Your task to perform on an android device: turn on bluetooth scan Image 0: 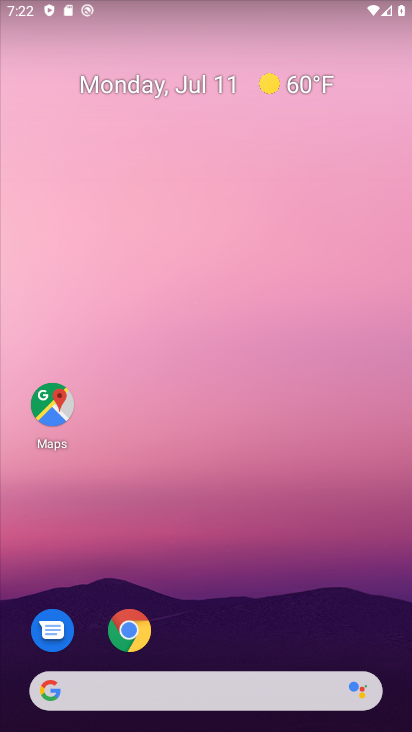
Step 0: drag from (385, 624) to (303, 228)
Your task to perform on an android device: turn on bluetooth scan Image 1: 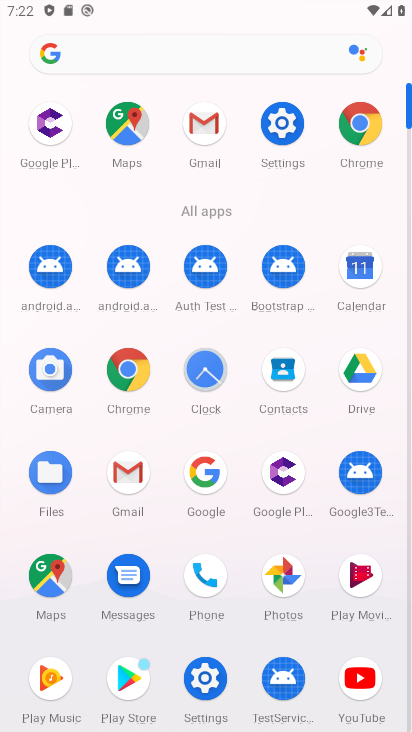
Step 1: click (208, 677)
Your task to perform on an android device: turn on bluetooth scan Image 2: 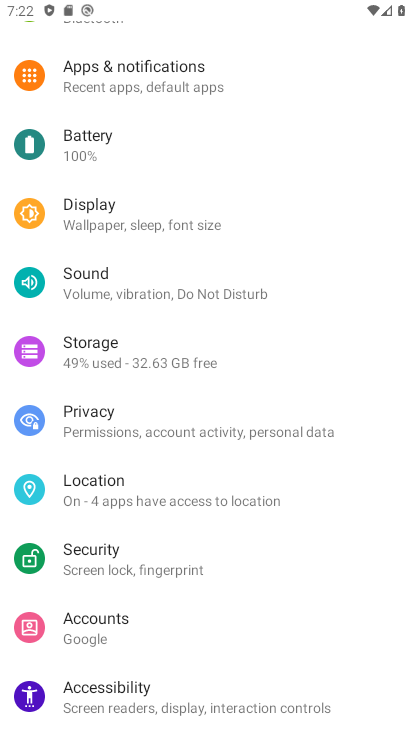
Step 2: click (96, 488)
Your task to perform on an android device: turn on bluetooth scan Image 3: 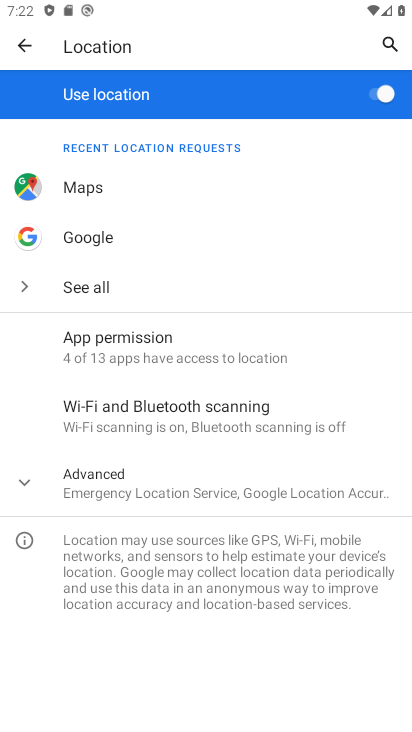
Step 3: click (161, 425)
Your task to perform on an android device: turn on bluetooth scan Image 4: 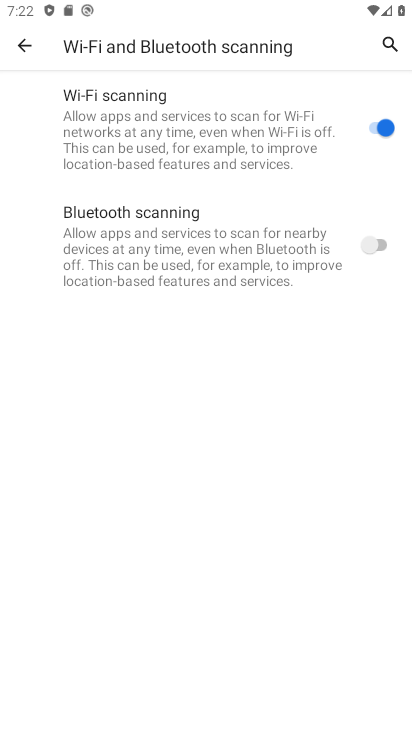
Step 4: click (382, 246)
Your task to perform on an android device: turn on bluetooth scan Image 5: 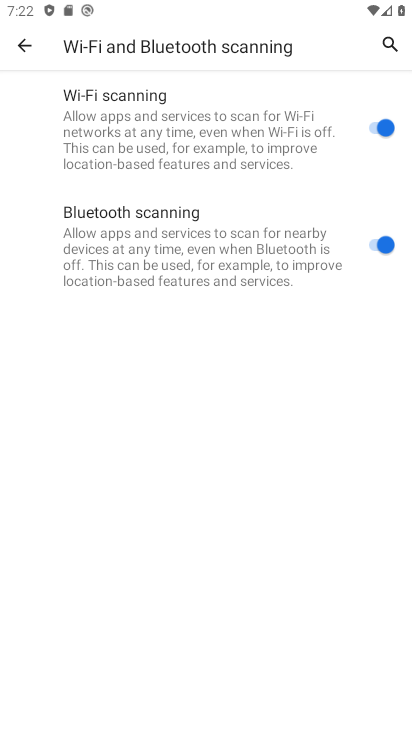
Step 5: task complete